Your task to perform on an android device: Search for seafood restaurants on Google Maps Image 0: 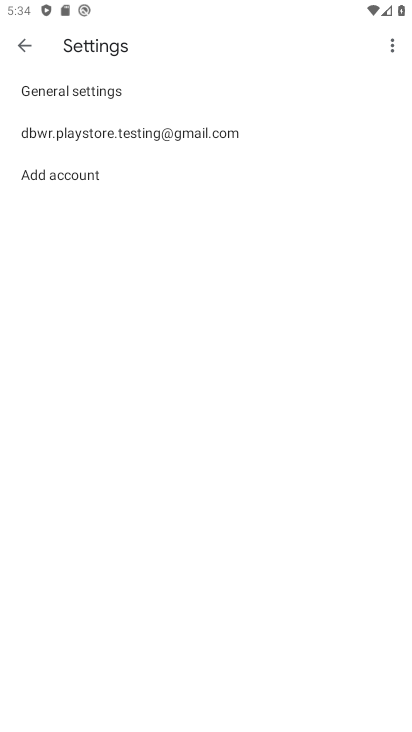
Step 0: press home button
Your task to perform on an android device: Search for seafood restaurants on Google Maps Image 1: 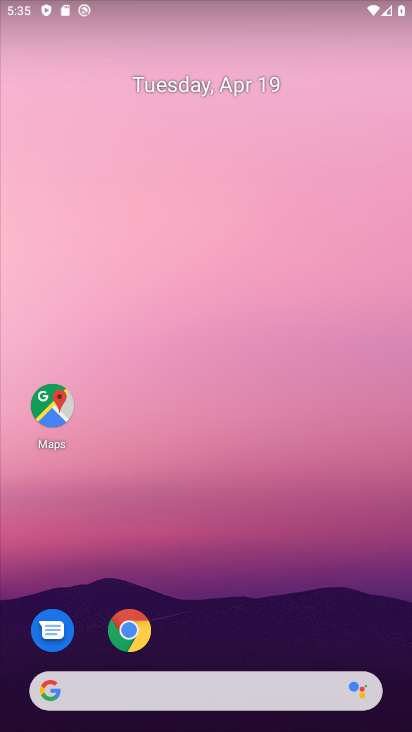
Step 1: drag from (224, 580) to (190, 35)
Your task to perform on an android device: Search for seafood restaurants on Google Maps Image 2: 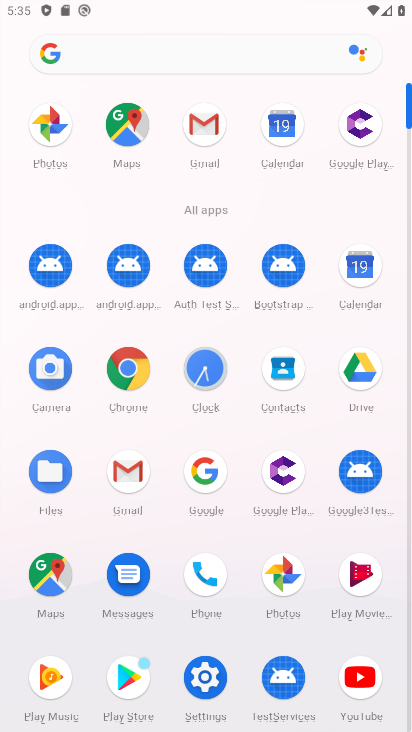
Step 2: click (132, 122)
Your task to perform on an android device: Search for seafood restaurants on Google Maps Image 3: 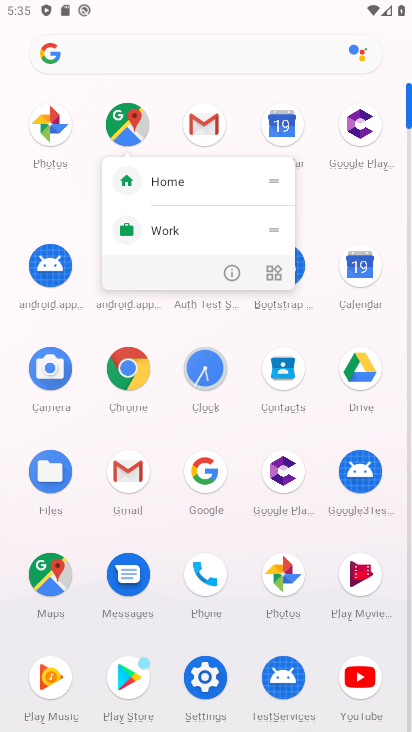
Step 3: click (117, 105)
Your task to perform on an android device: Search for seafood restaurants on Google Maps Image 4: 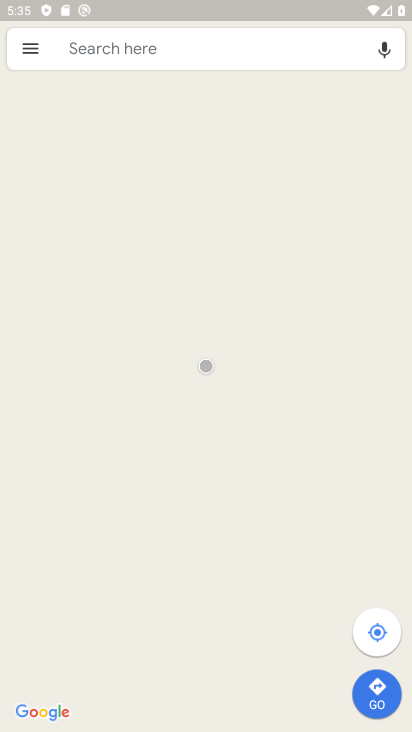
Step 4: click (225, 58)
Your task to perform on an android device: Search for seafood restaurants on Google Maps Image 5: 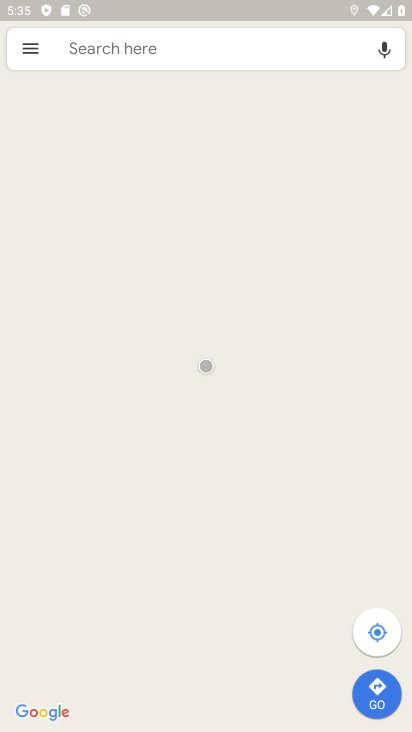
Step 5: click (205, 60)
Your task to perform on an android device: Search for seafood restaurants on Google Maps Image 6: 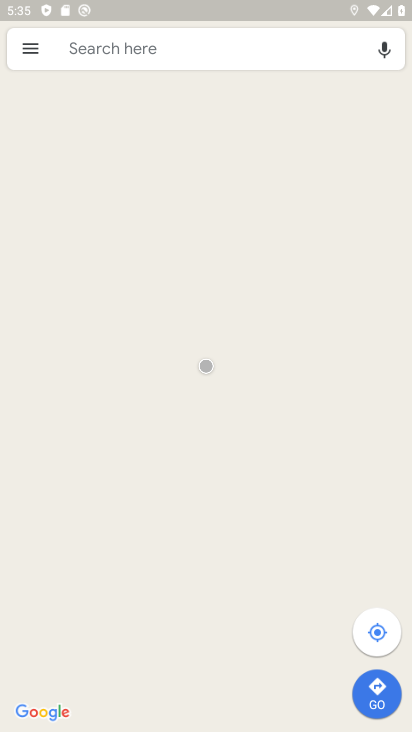
Step 6: click (148, 47)
Your task to perform on an android device: Search for seafood restaurants on Google Maps Image 7: 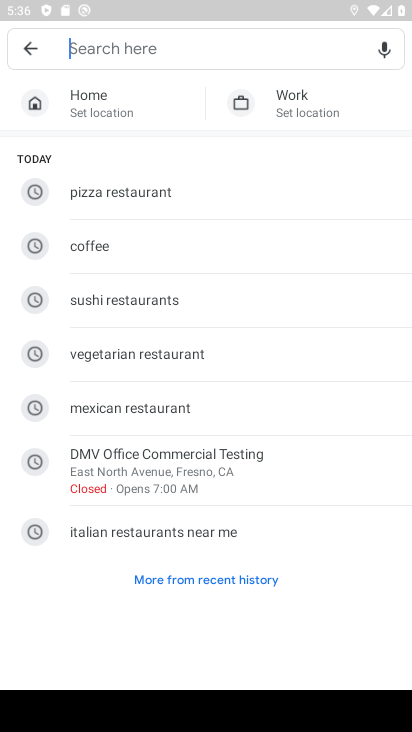
Step 7: type "seafood restaurants"
Your task to perform on an android device: Search for seafood restaurants on Google Maps Image 8: 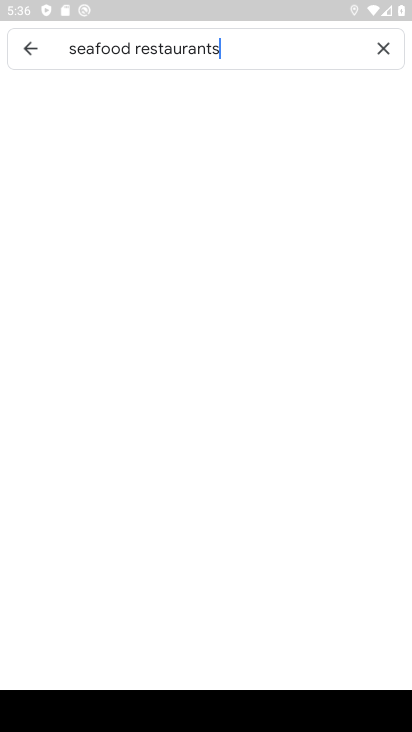
Step 8: type ""
Your task to perform on an android device: Search for seafood restaurants on Google Maps Image 9: 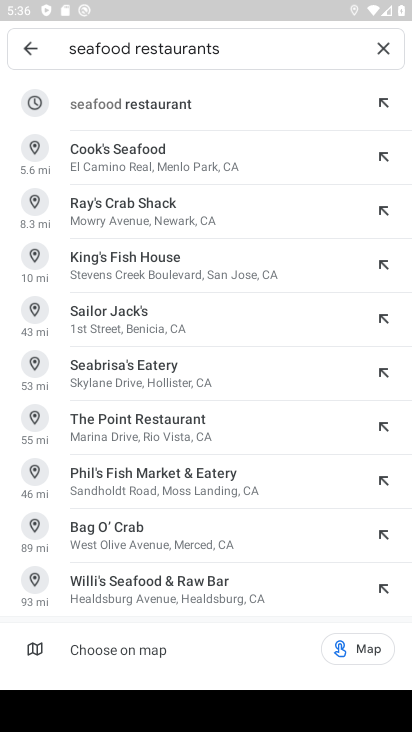
Step 9: click (183, 94)
Your task to perform on an android device: Search for seafood restaurants on Google Maps Image 10: 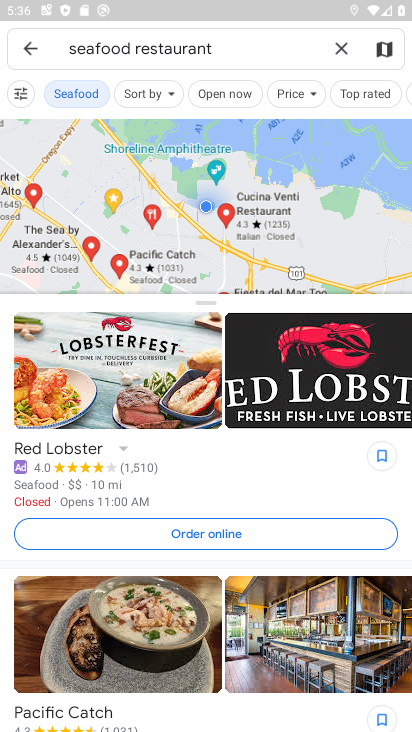
Step 10: task complete